Your task to perform on an android device: clear all cookies in the chrome app Image 0: 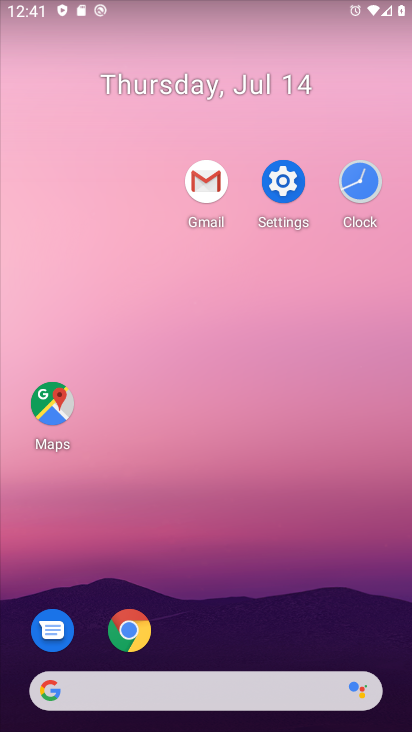
Step 0: click (139, 640)
Your task to perform on an android device: clear all cookies in the chrome app Image 1: 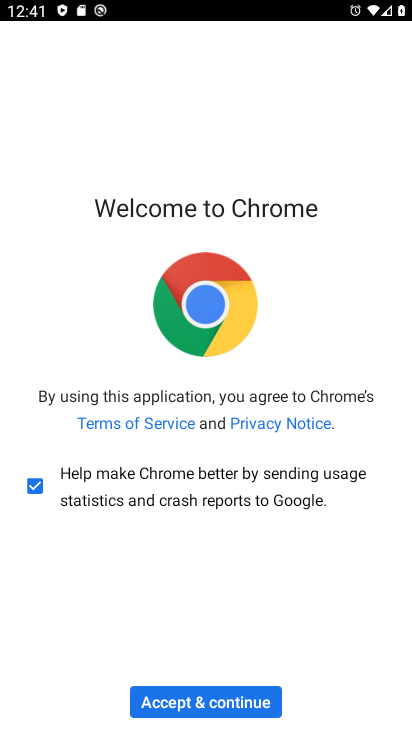
Step 1: click (269, 692)
Your task to perform on an android device: clear all cookies in the chrome app Image 2: 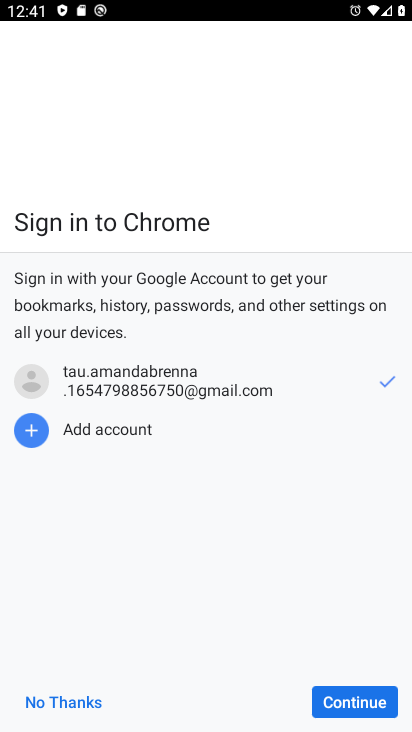
Step 2: click (367, 710)
Your task to perform on an android device: clear all cookies in the chrome app Image 3: 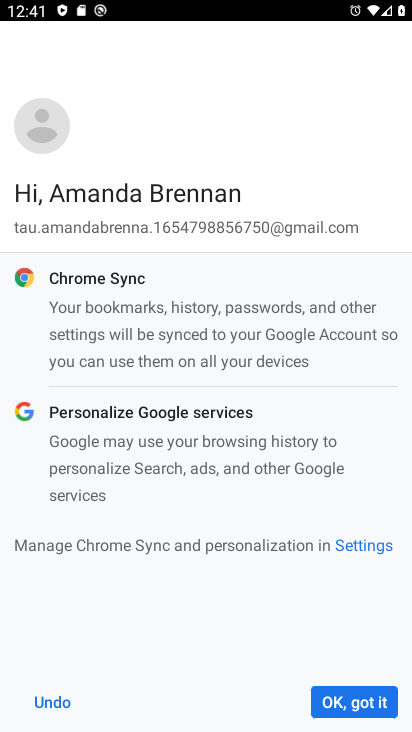
Step 3: click (380, 709)
Your task to perform on an android device: clear all cookies in the chrome app Image 4: 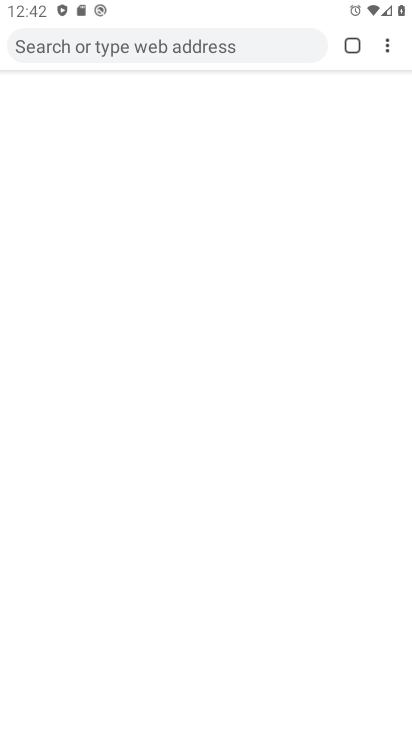
Step 4: click (389, 50)
Your task to perform on an android device: clear all cookies in the chrome app Image 5: 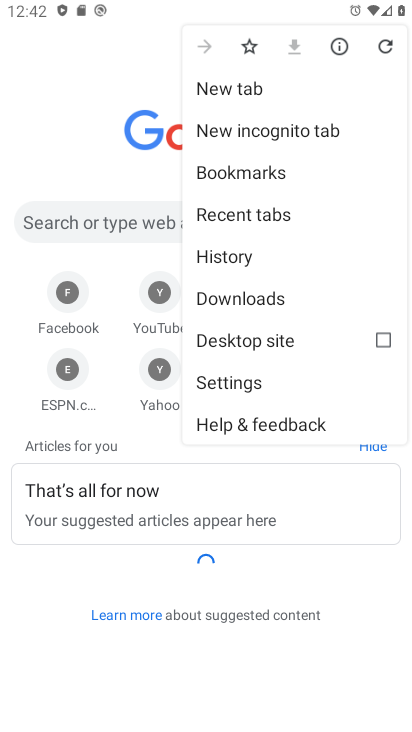
Step 5: click (284, 375)
Your task to perform on an android device: clear all cookies in the chrome app Image 6: 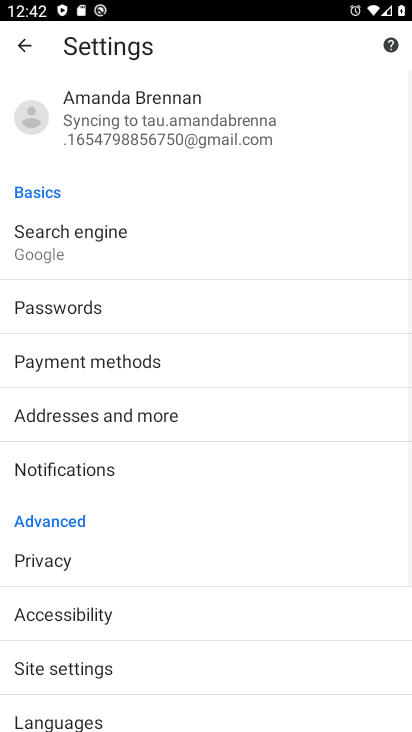
Step 6: click (142, 562)
Your task to perform on an android device: clear all cookies in the chrome app Image 7: 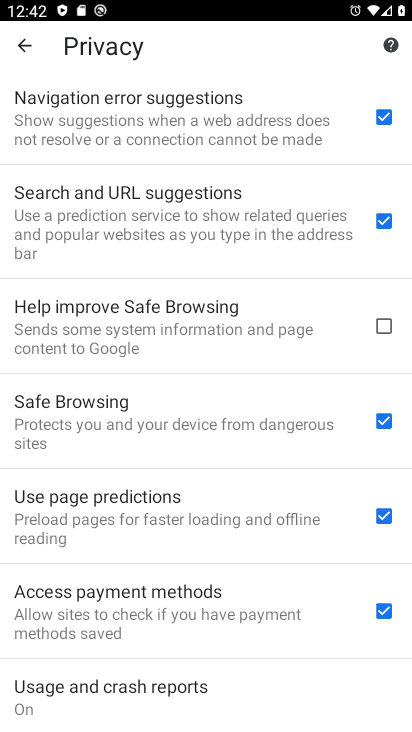
Step 7: drag from (271, 573) to (265, 176)
Your task to perform on an android device: clear all cookies in the chrome app Image 8: 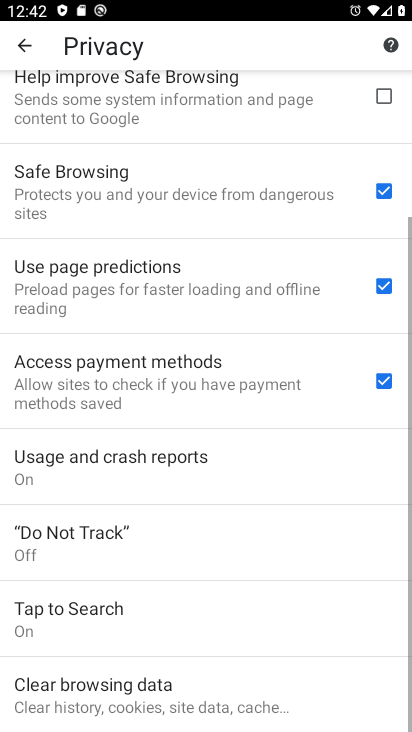
Step 8: click (235, 684)
Your task to perform on an android device: clear all cookies in the chrome app Image 9: 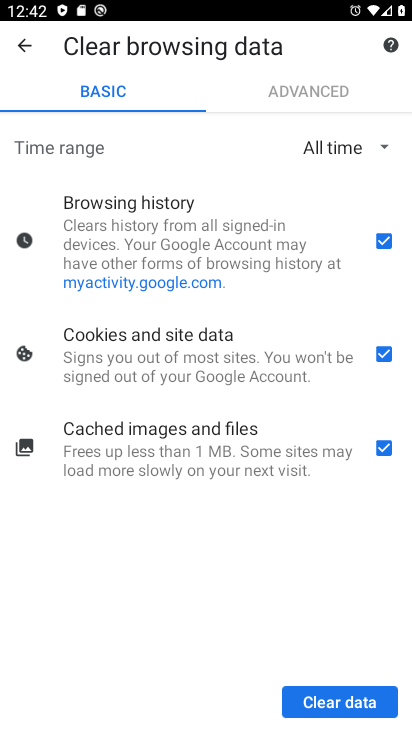
Step 9: click (365, 704)
Your task to perform on an android device: clear all cookies in the chrome app Image 10: 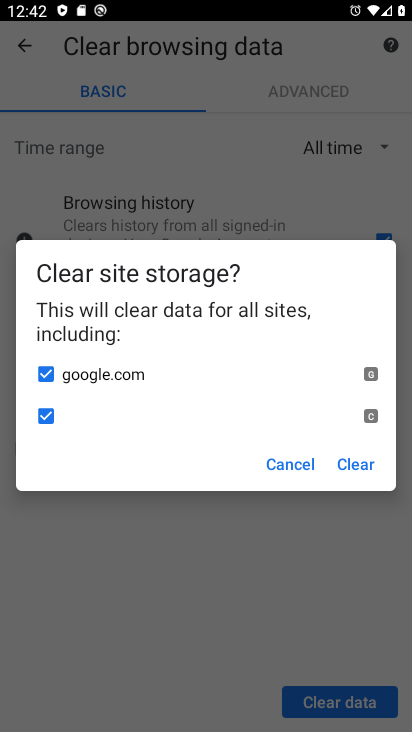
Step 10: click (358, 453)
Your task to perform on an android device: clear all cookies in the chrome app Image 11: 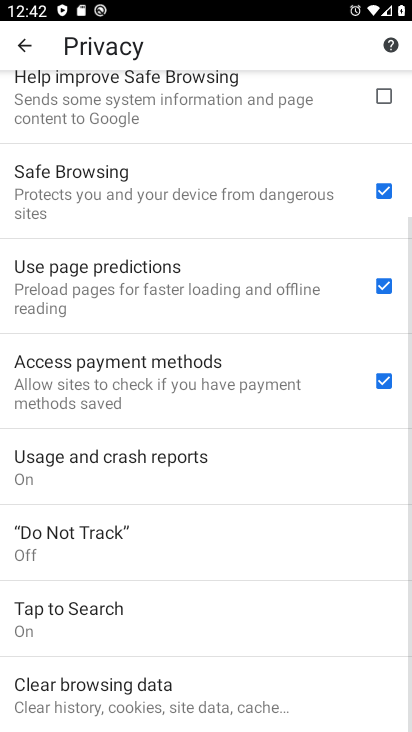
Step 11: task complete